Your task to perform on an android device: Open calendar and show me the fourth week of next month Image 0: 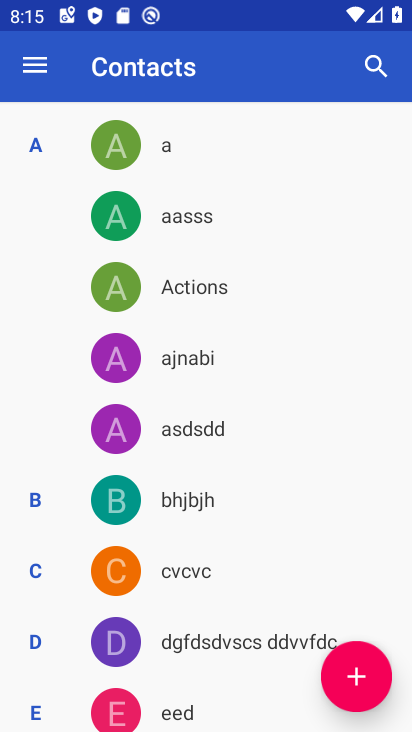
Step 0: press home button
Your task to perform on an android device: Open calendar and show me the fourth week of next month Image 1: 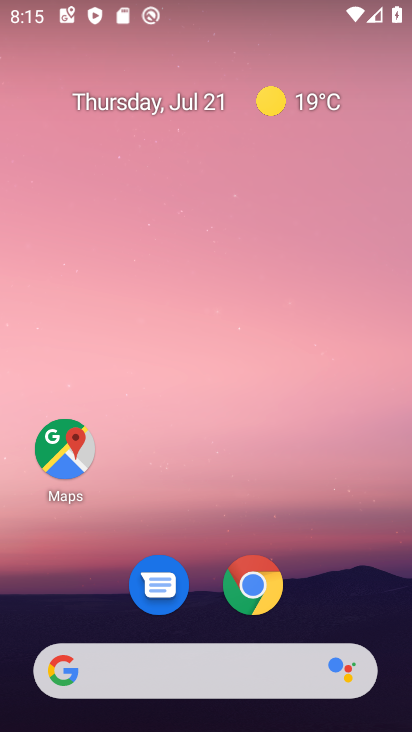
Step 1: drag from (339, 607) to (300, 57)
Your task to perform on an android device: Open calendar and show me the fourth week of next month Image 2: 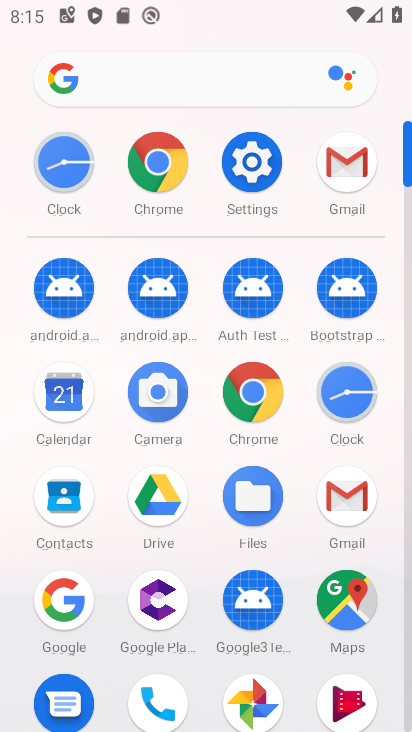
Step 2: click (53, 391)
Your task to perform on an android device: Open calendar and show me the fourth week of next month Image 3: 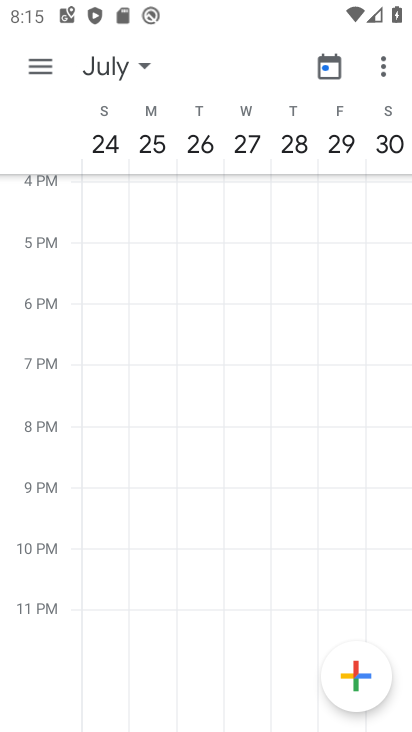
Step 3: task complete